Your task to perform on an android device: turn off airplane mode Image 0: 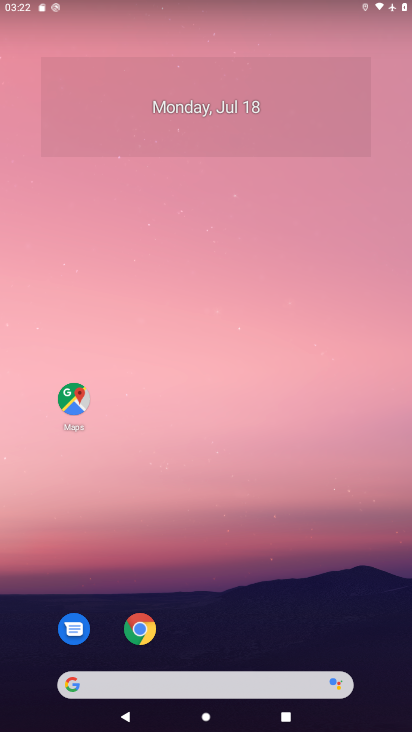
Step 0: drag from (373, 632) to (378, 85)
Your task to perform on an android device: turn off airplane mode Image 1: 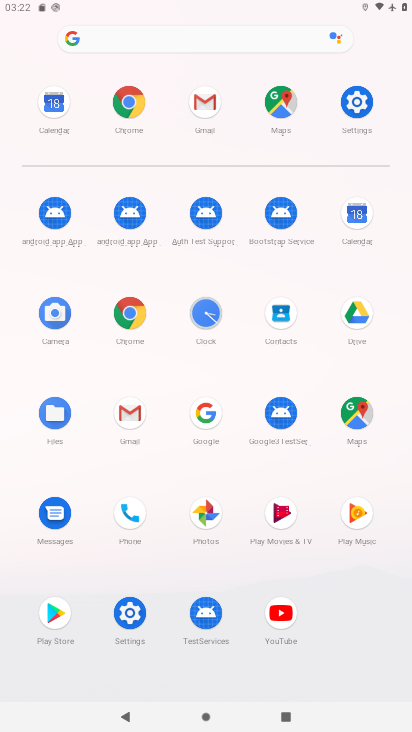
Step 1: click (356, 108)
Your task to perform on an android device: turn off airplane mode Image 2: 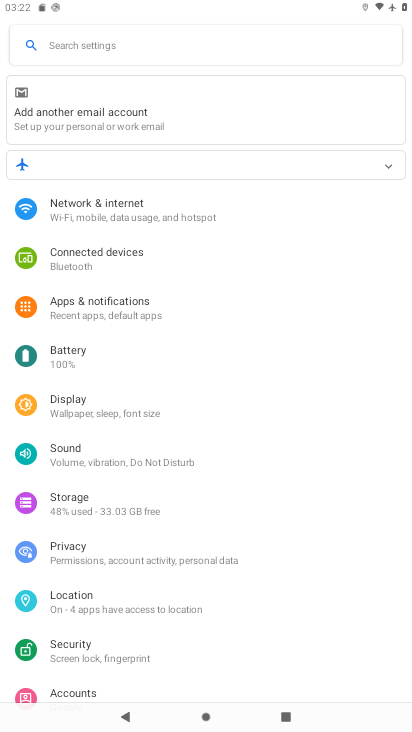
Step 2: drag from (324, 457) to (324, 405)
Your task to perform on an android device: turn off airplane mode Image 3: 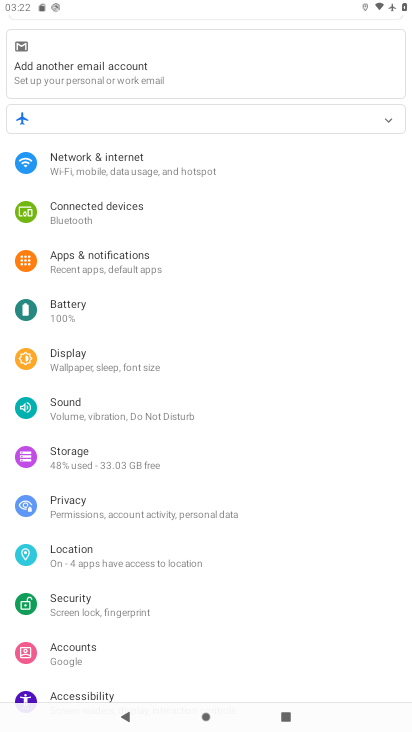
Step 3: drag from (313, 487) to (313, 426)
Your task to perform on an android device: turn off airplane mode Image 4: 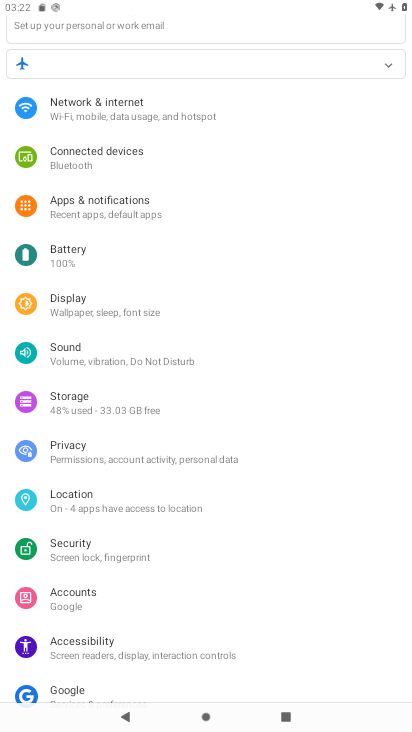
Step 4: drag from (290, 500) to (297, 428)
Your task to perform on an android device: turn off airplane mode Image 5: 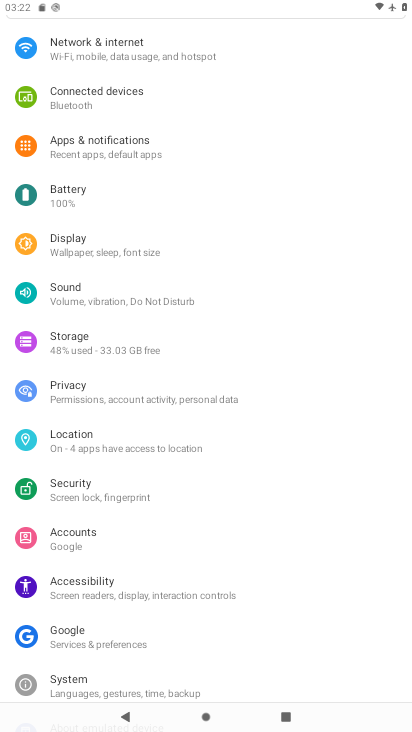
Step 5: drag from (294, 526) to (300, 424)
Your task to perform on an android device: turn off airplane mode Image 6: 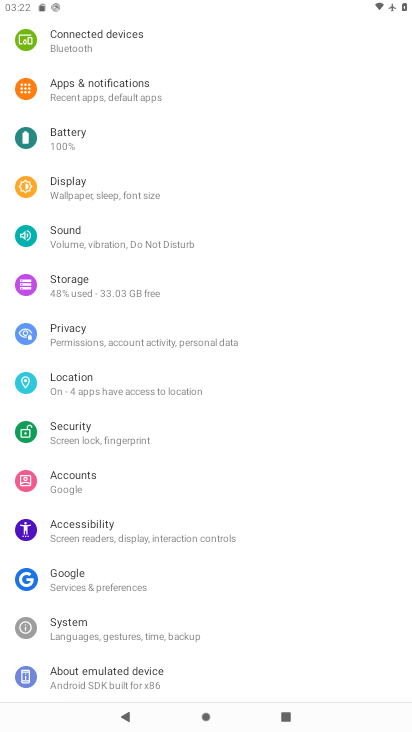
Step 6: drag from (304, 333) to (300, 413)
Your task to perform on an android device: turn off airplane mode Image 7: 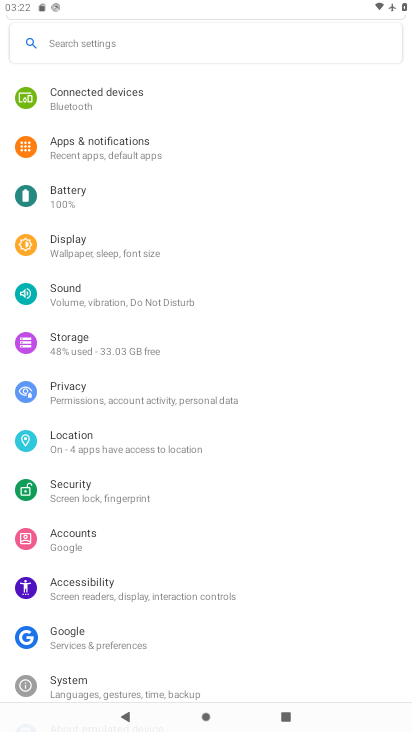
Step 7: drag from (300, 350) to (297, 453)
Your task to perform on an android device: turn off airplane mode Image 8: 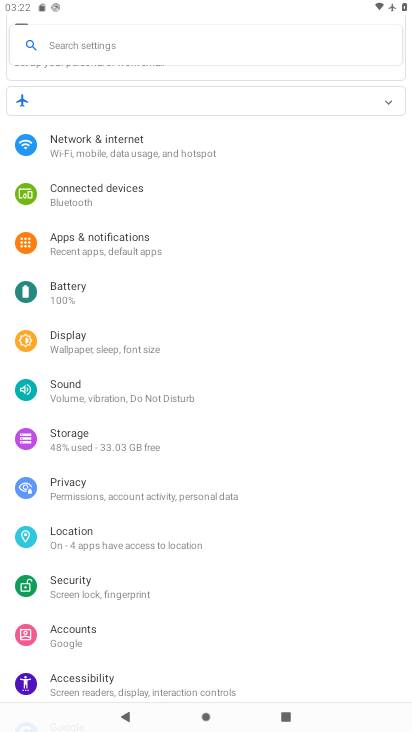
Step 8: drag from (299, 284) to (290, 423)
Your task to perform on an android device: turn off airplane mode Image 9: 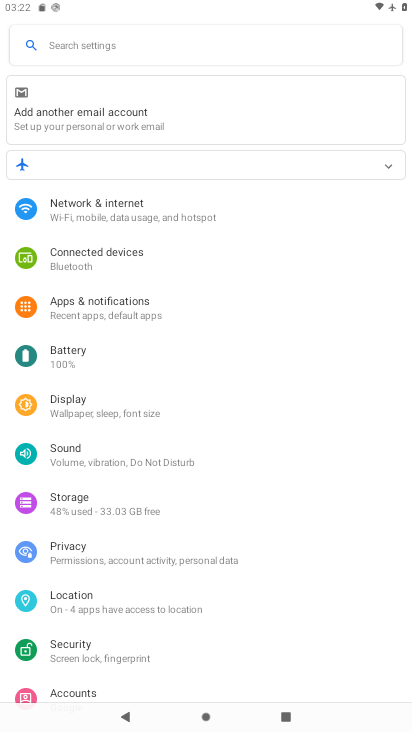
Step 9: click (241, 220)
Your task to perform on an android device: turn off airplane mode Image 10: 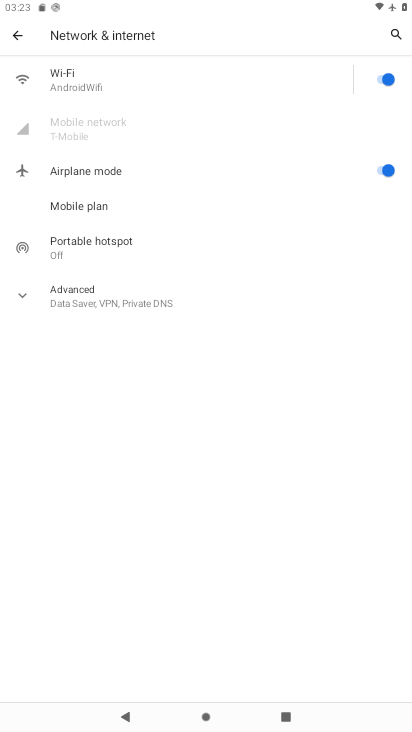
Step 10: click (387, 172)
Your task to perform on an android device: turn off airplane mode Image 11: 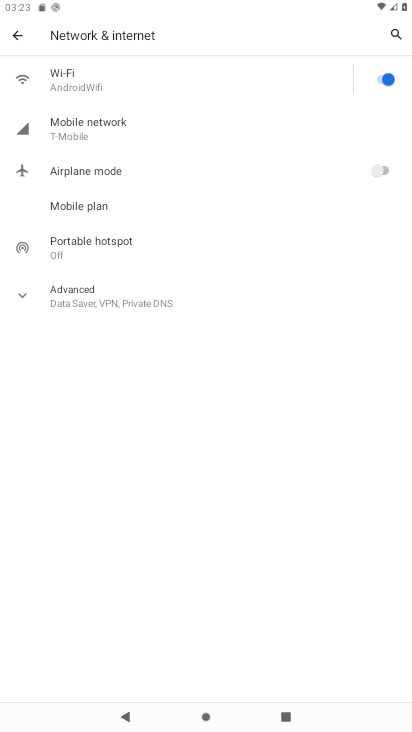
Step 11: task complete